Your task to perform on an android device: Go to Reddit.com Image 0: 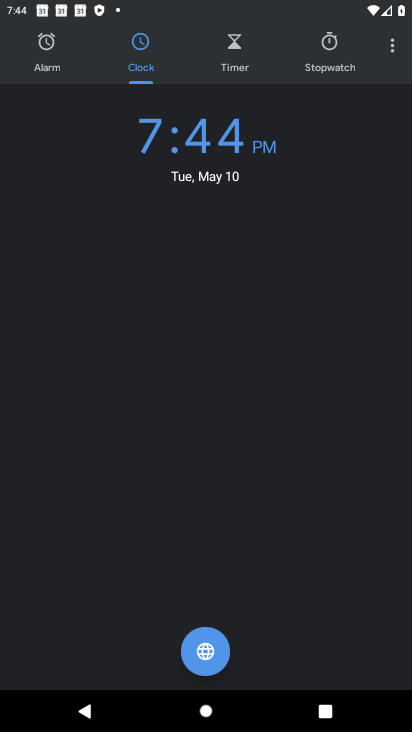
Step 0: press home button
Your task to perform on an android device: Go to Reddit.com Image 1: 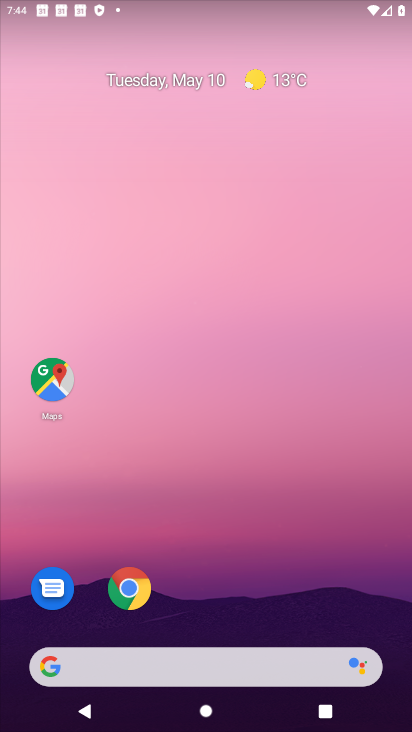
Step 1: click (208, 670)
Your task to perform on an android device: Go to Reddit.com Image 2: 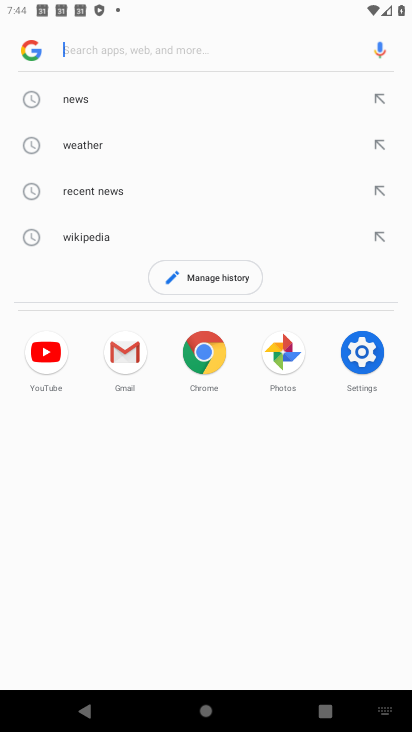
Step 2: type "reddit.com"
Your task to perform on an android device: Go to Reddit.com Image 3: 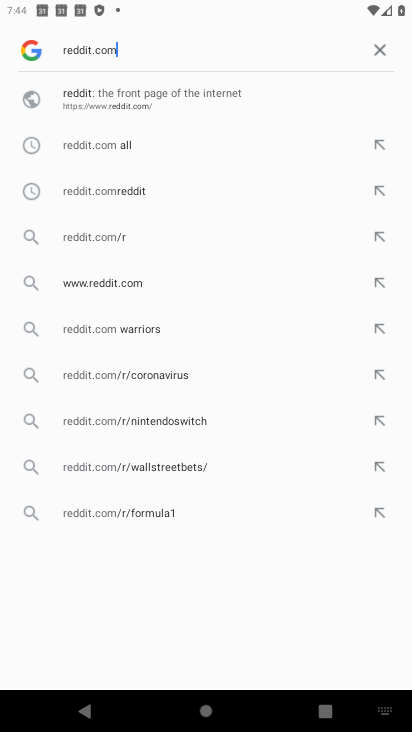
Step 3: click (148, 110)
Your task to perform on an android device: Go to Reddit.com Image 4: 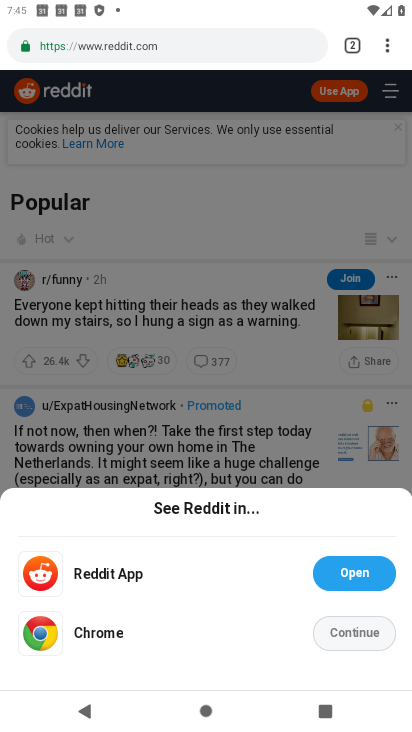
Step 4: task complete